Your task to perform on an android device: Open display settings Image 0: 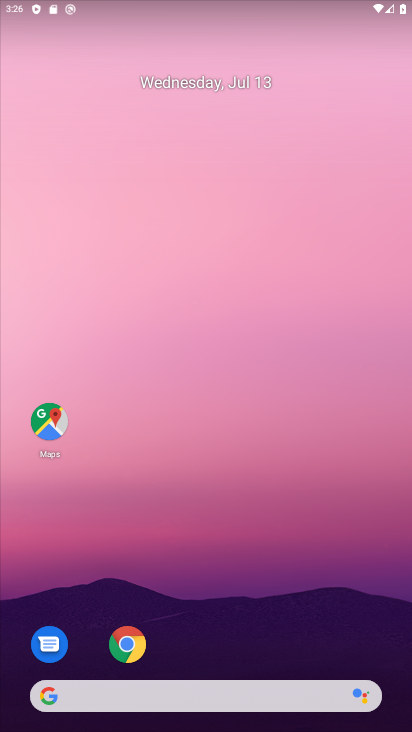
Step 0: drag from (350, 506) to (262, 151)
Your task to perform on an android device: Open display settings Image 1: 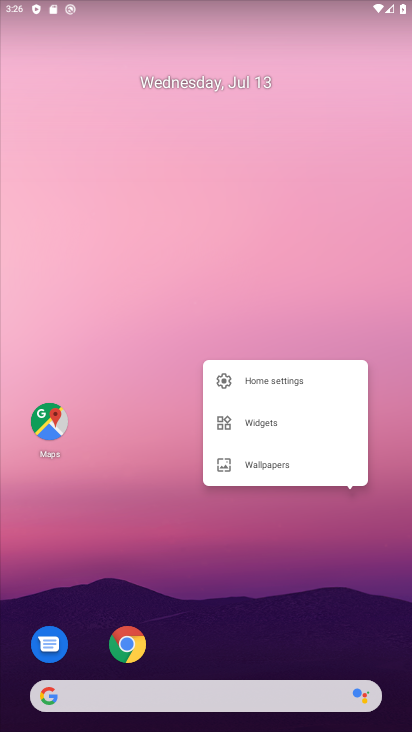
Step 1: drag from (210, 621) to (259, 8)
Your task to perform on an android device: Open display settings Image 2: 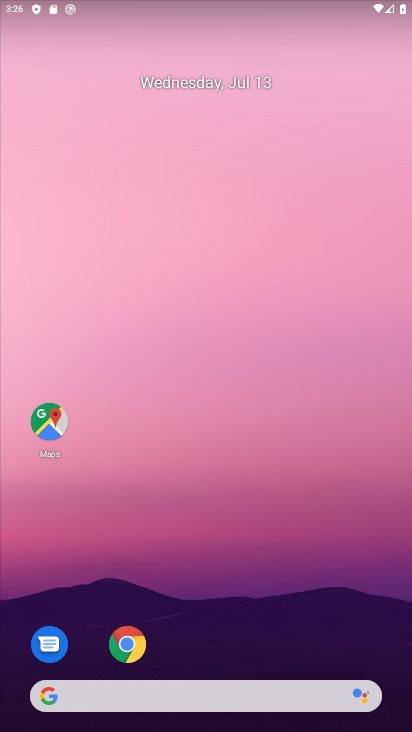
Step 2: drag from (328, 603) to (325, 93)
Your task to perform on an android device: Open display settings Image 3: 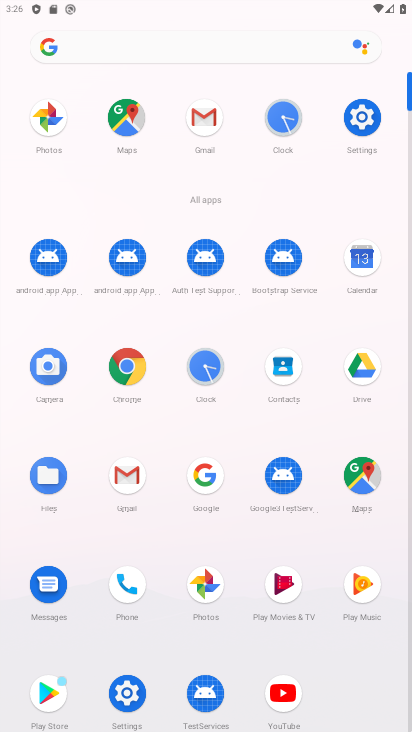
Step 3: click (137, 682)
Your task to perform on an android device: Open display settings Image 4: 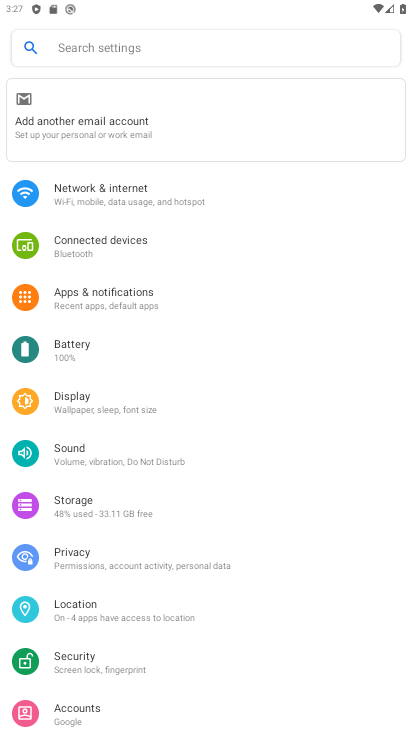
Step 4: click (100, 413)
Your task to perform on an android device: Open display settings Image 5: 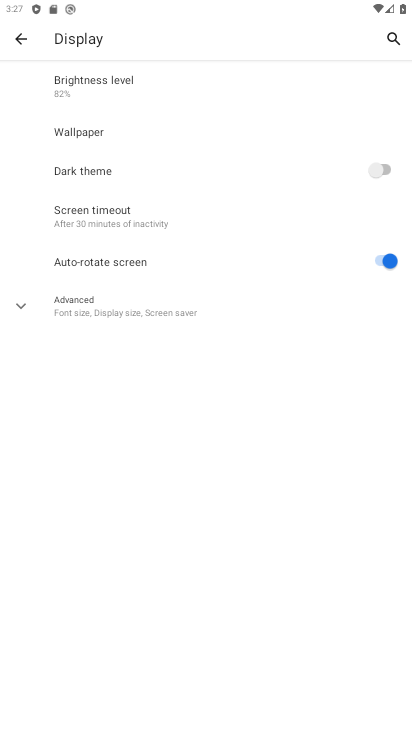
Step 5: task complete